Your task to perform on an android device: Go to wifi settings Image 0: 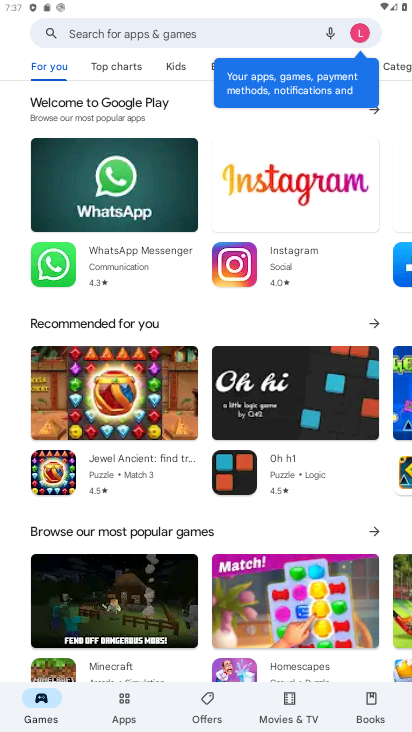
Step 0: press home button
Your task to perform on an android device: Go to wifi settings Image 1: 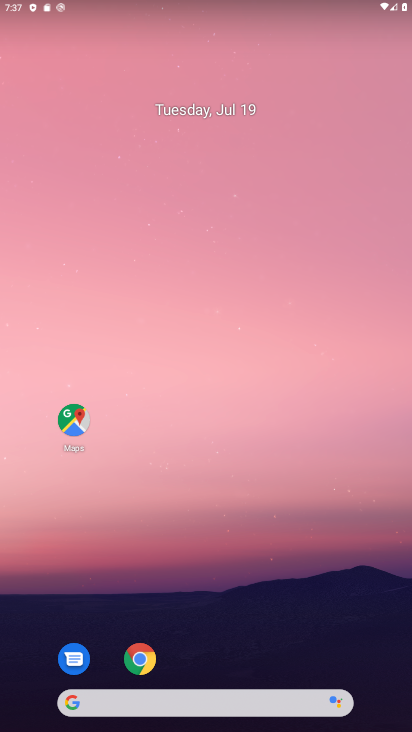
Step 1: drag from (221, 625) to (288, 279)
Your task to perform on an android device: Go to wifi settings Image 2: 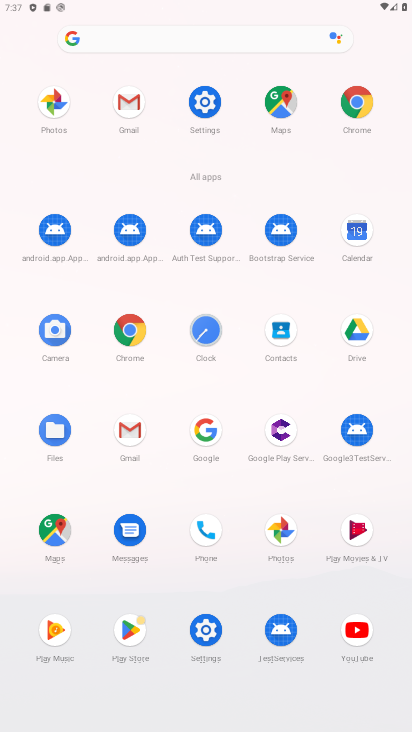
Step 2: click (204, 98)
Your task to perform on an android device: Go to wifi settings Image 3: 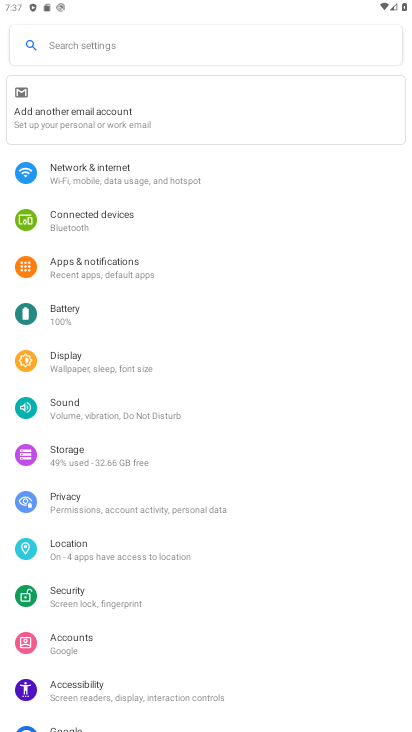
Step 3: click (85, 177)
Your task to perform on an android device: Go to wifi settings Image 4: 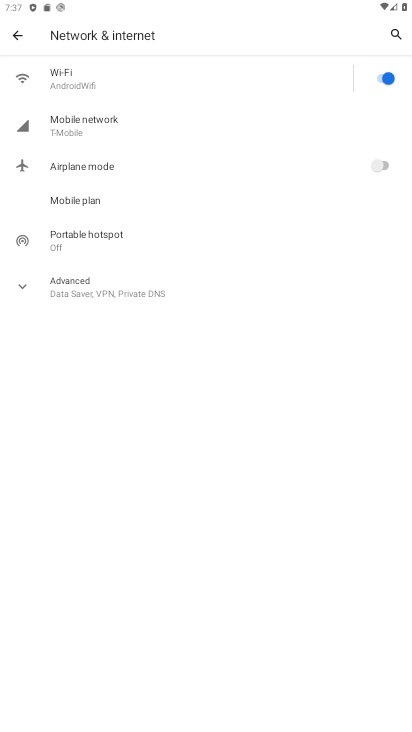
Step 4: click (189, 74)
Your task to perform on an android device: Go to wifi settings Image 5: 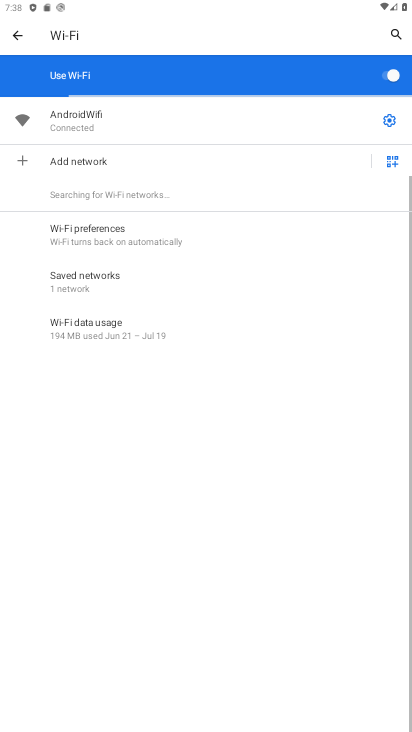
Step 5: click (390, 118)
Your task to perform on an android device: Go to wifi settings Image 6: 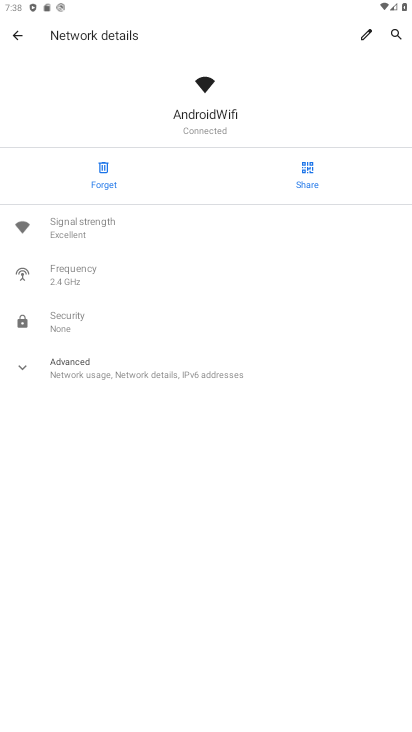
Step 6: task complete